Your task to perform on an android device: change the clock display to analog Image 0: 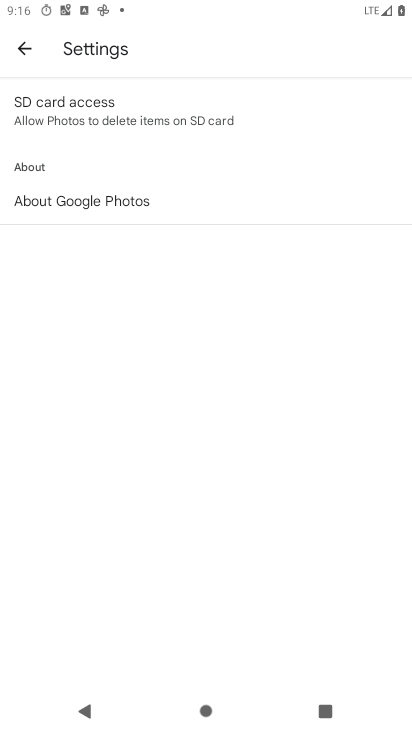
Step 0: press home button
Your task to perform on an android device: change the clock display to analog Image 1: 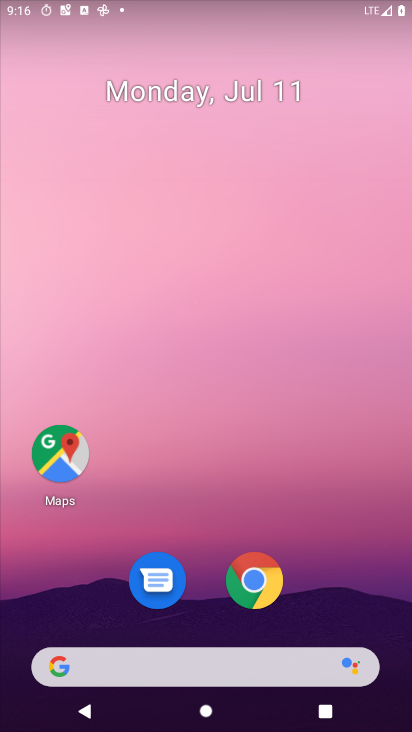
Step 1: drag from (314, 554) to (337, 47)
Your task to perform on an android device: change the clock display to analog Image 2: 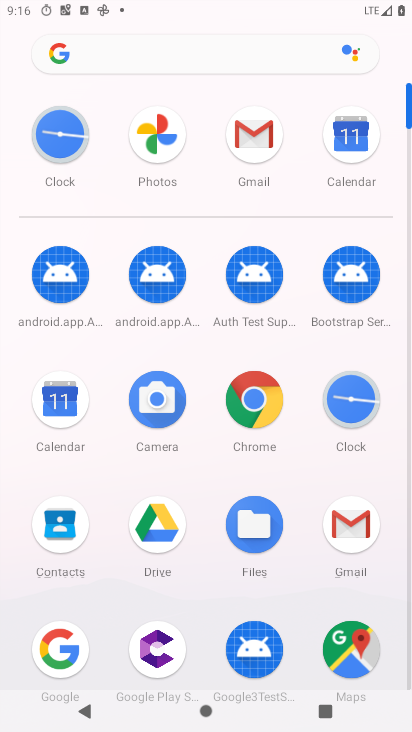
Step 2: click (339, 386)
Your task to perform on an android device: change the clock display to analog Image 3: 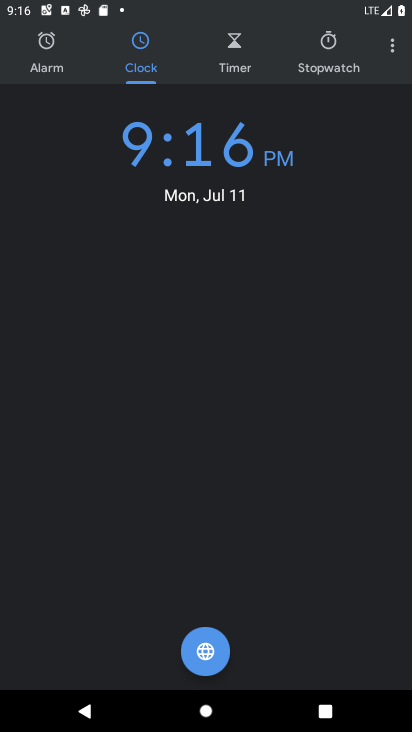
Step 3: click (386, 50)
Your task to perform on an android device: change the clock display to analog Image 4: 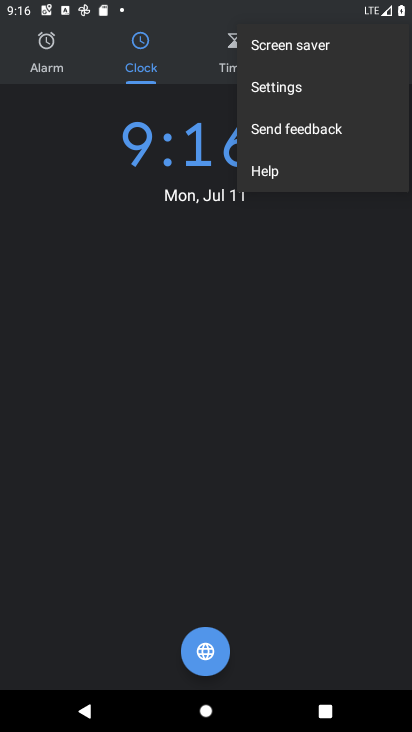
Step 4: click (330, 91)
Your task to perform on an android device: change the clock display to analog Image 5: 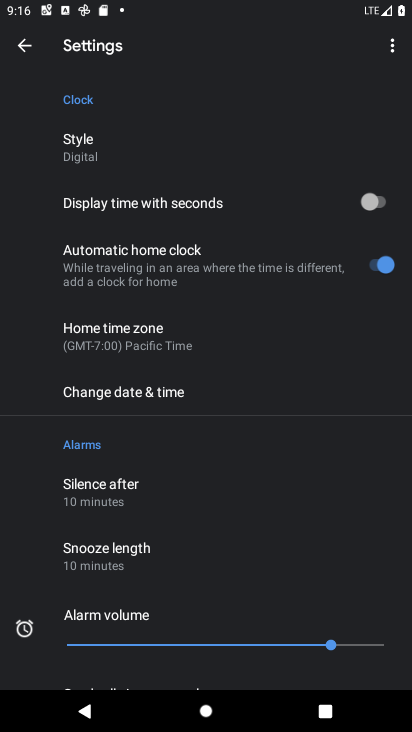
Step 5: click (89, 140)
Your task to perform on an android device: change the clock display to analog Image 6: 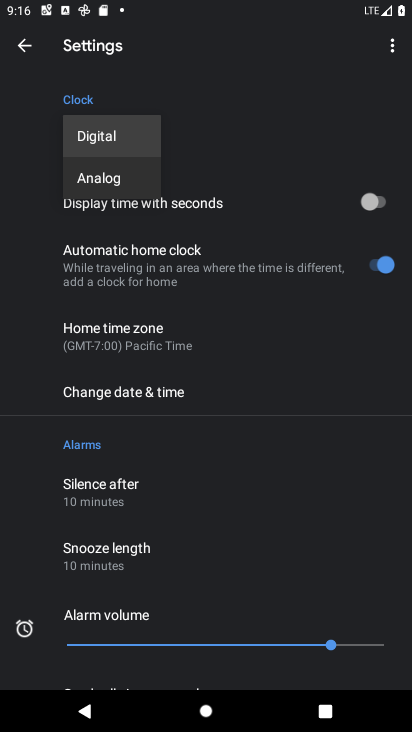
Step 6: click (135, 183)
Your task to perform on an android device: change the clock display to analog Image 7: 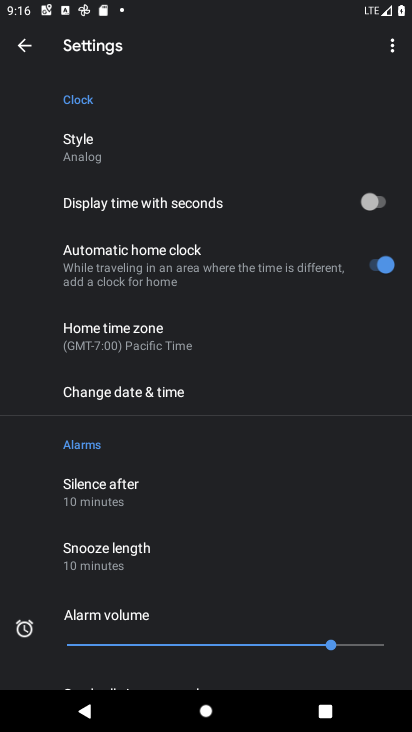
Step 7: click (26, 47)
Your task to perform on an android device: change the clock display to analog Image 8: 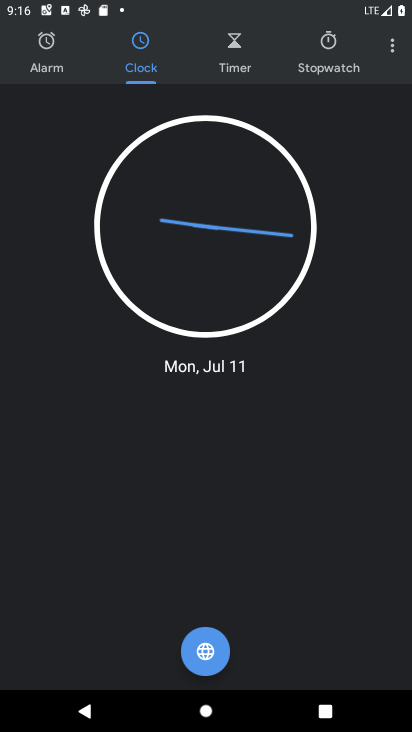
Step 8: task complete